Your task to perform on an android device: check out phone information Image 0: 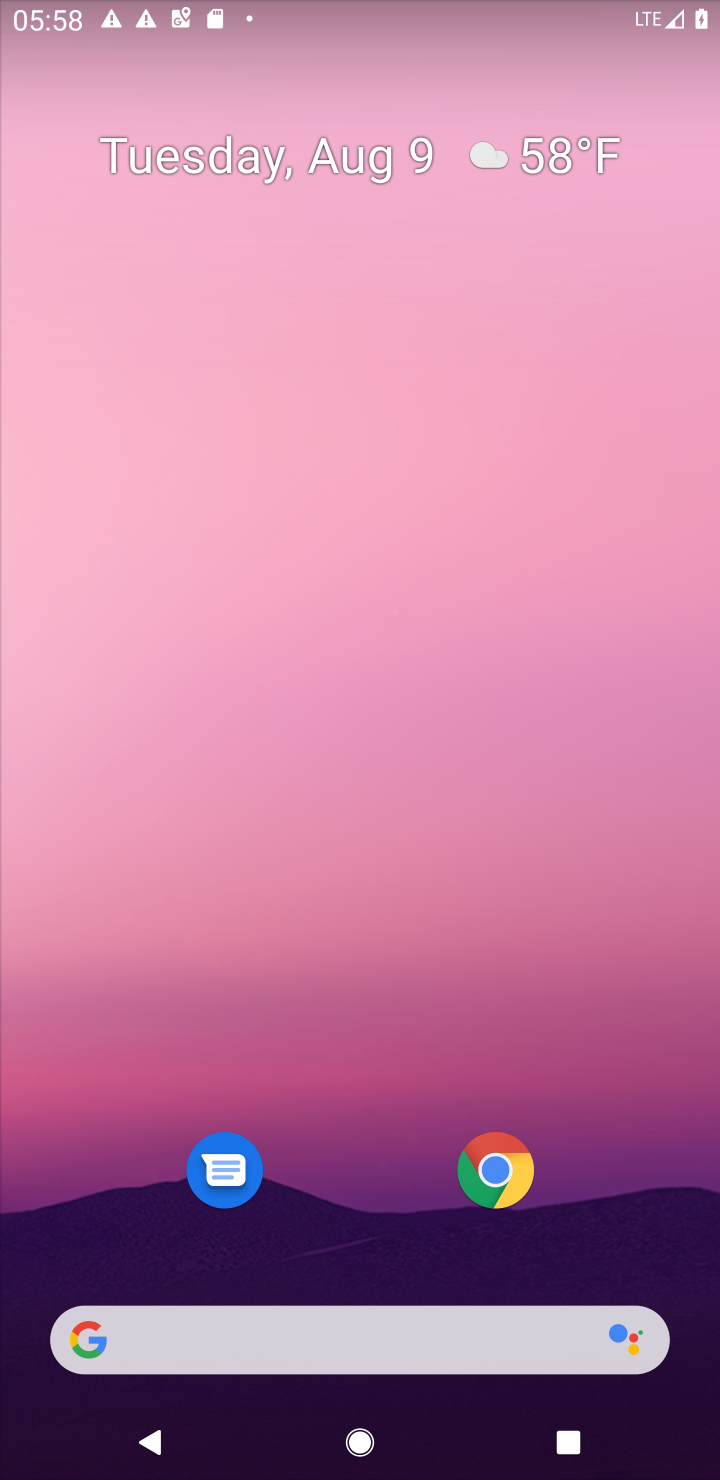
Step 0: press home button
Your task to perform on an android device: check out phone information Image 1: 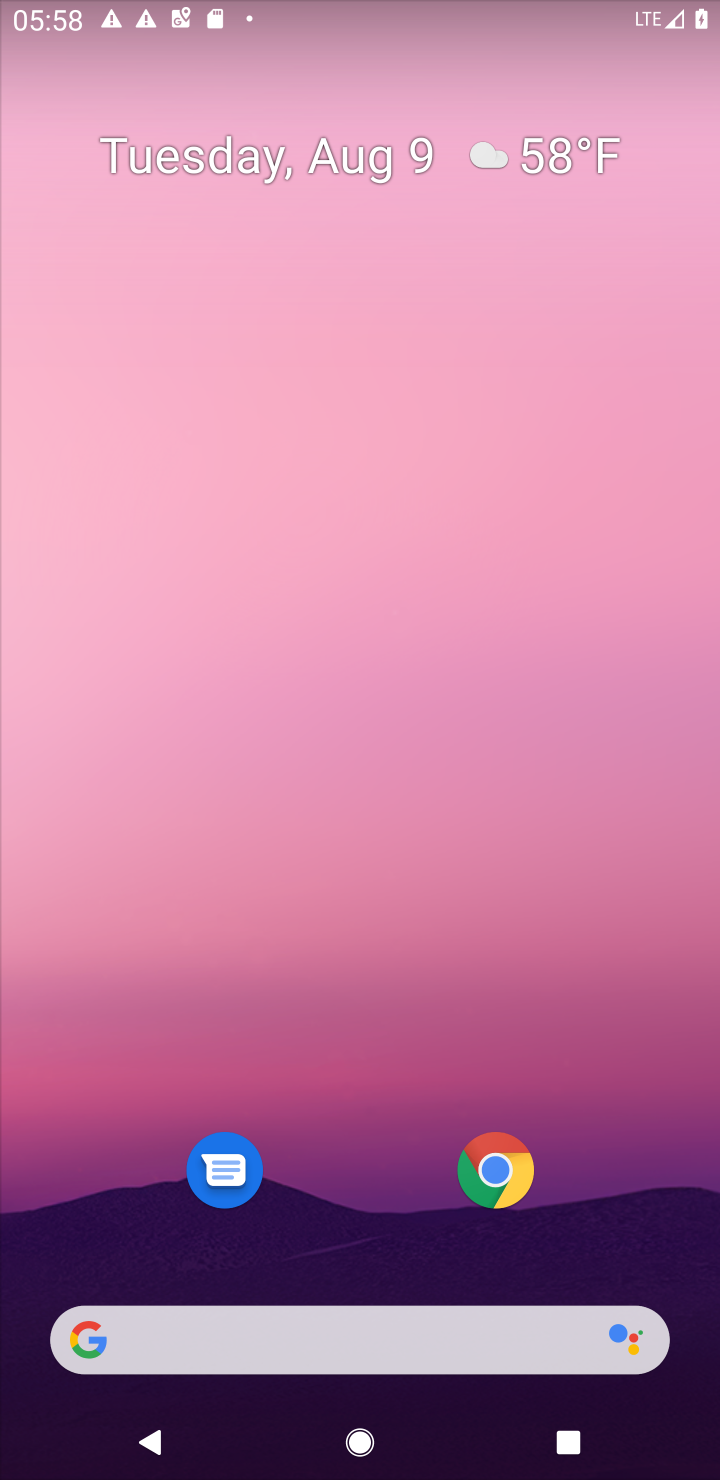
Step 1: drag from (450, 905) to (580, 78)
Your task to perform on an android device: check out phone information Image 2: 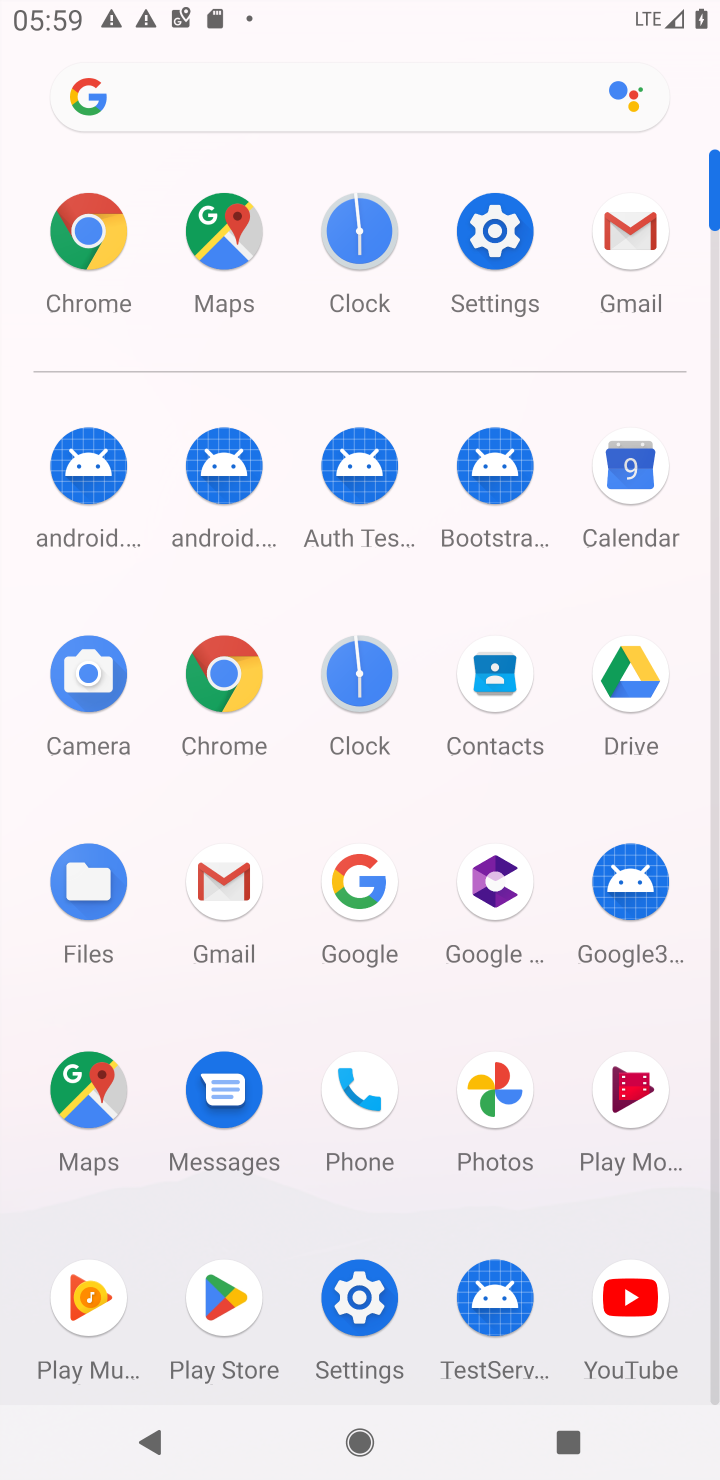
Step 2: click (501, 254)
Your task to perform on an android device: check out phone information Image 3: 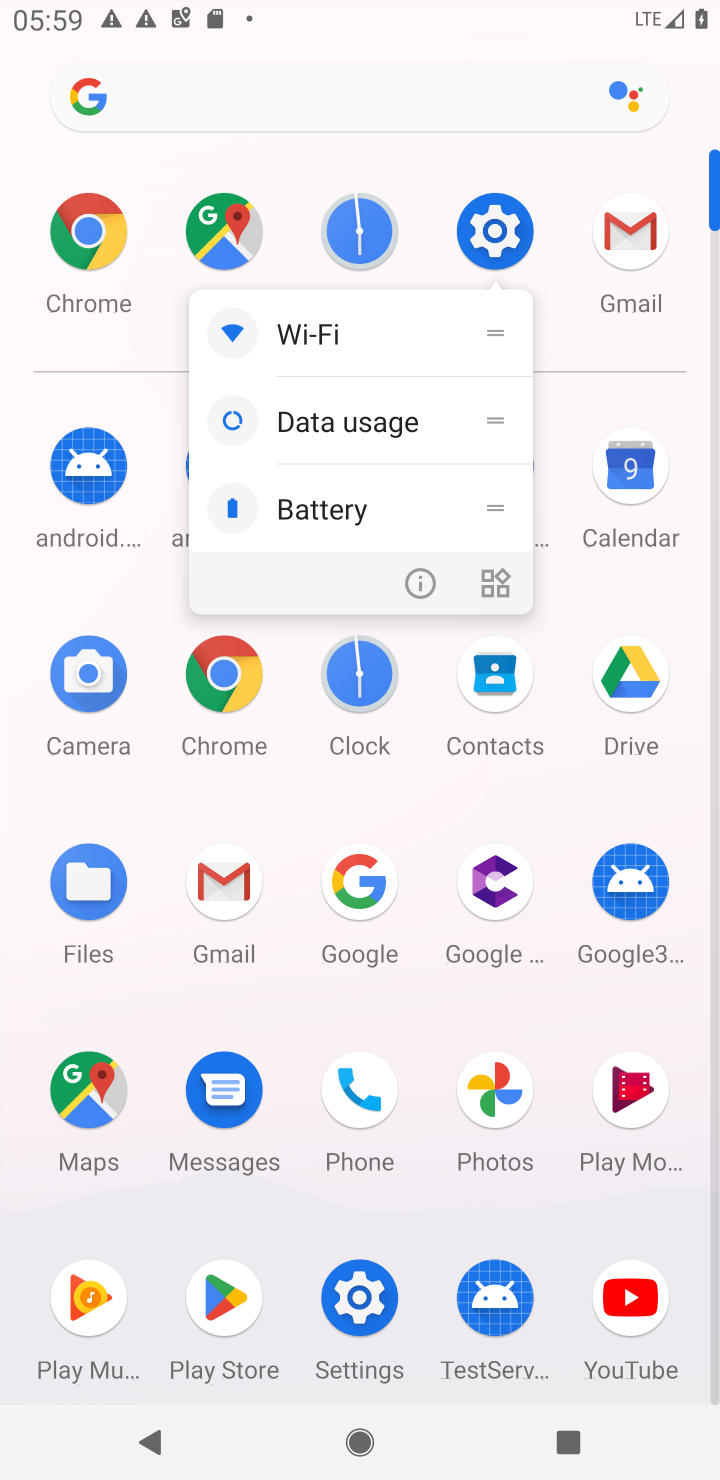
Step 3: click (501, 254)
Your task to perform on an android device: check out phone information Image 4: 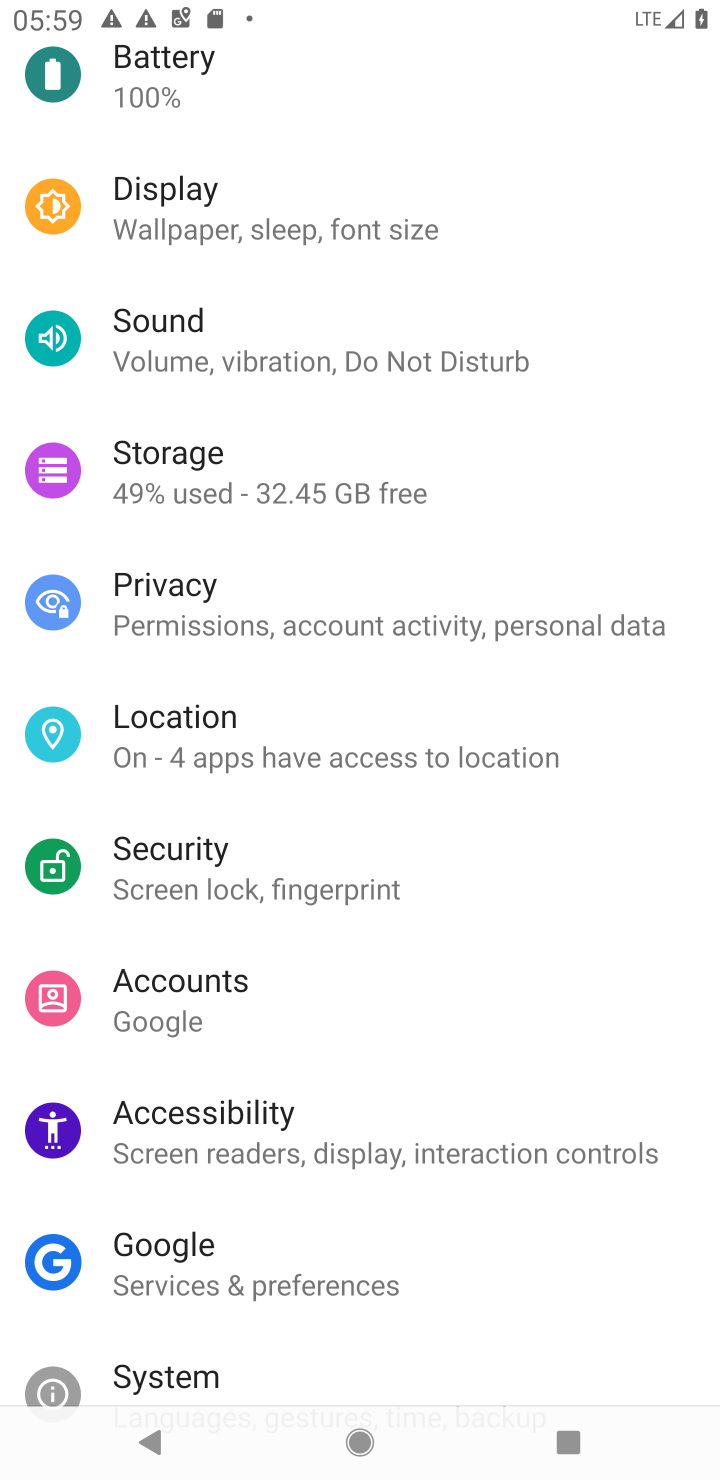
Step 4: drag from (459, 1316) to (454, 25)
Your task to perform on an android device: check out phone information Image 5: 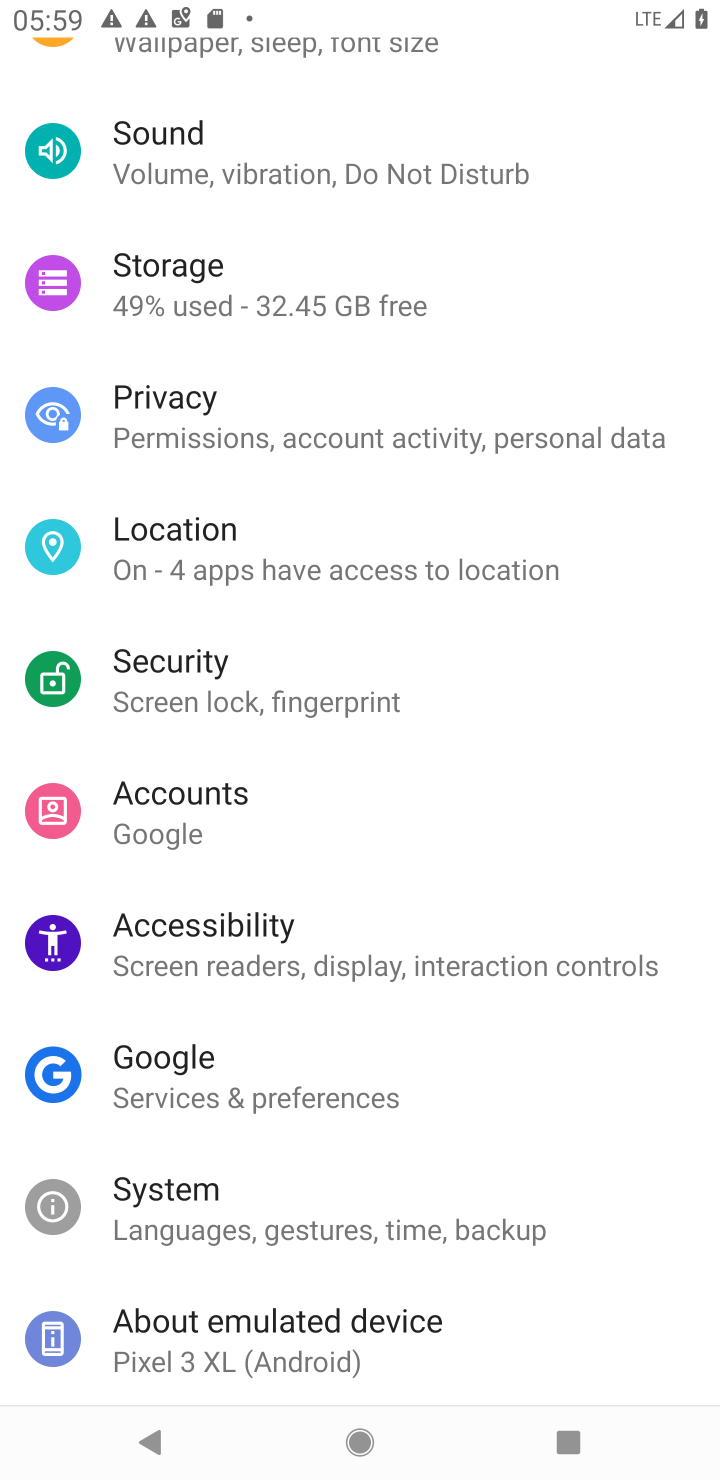
Step 5: click (221, 1328)
Your task to perform on an android device: check out phone information Image 6: 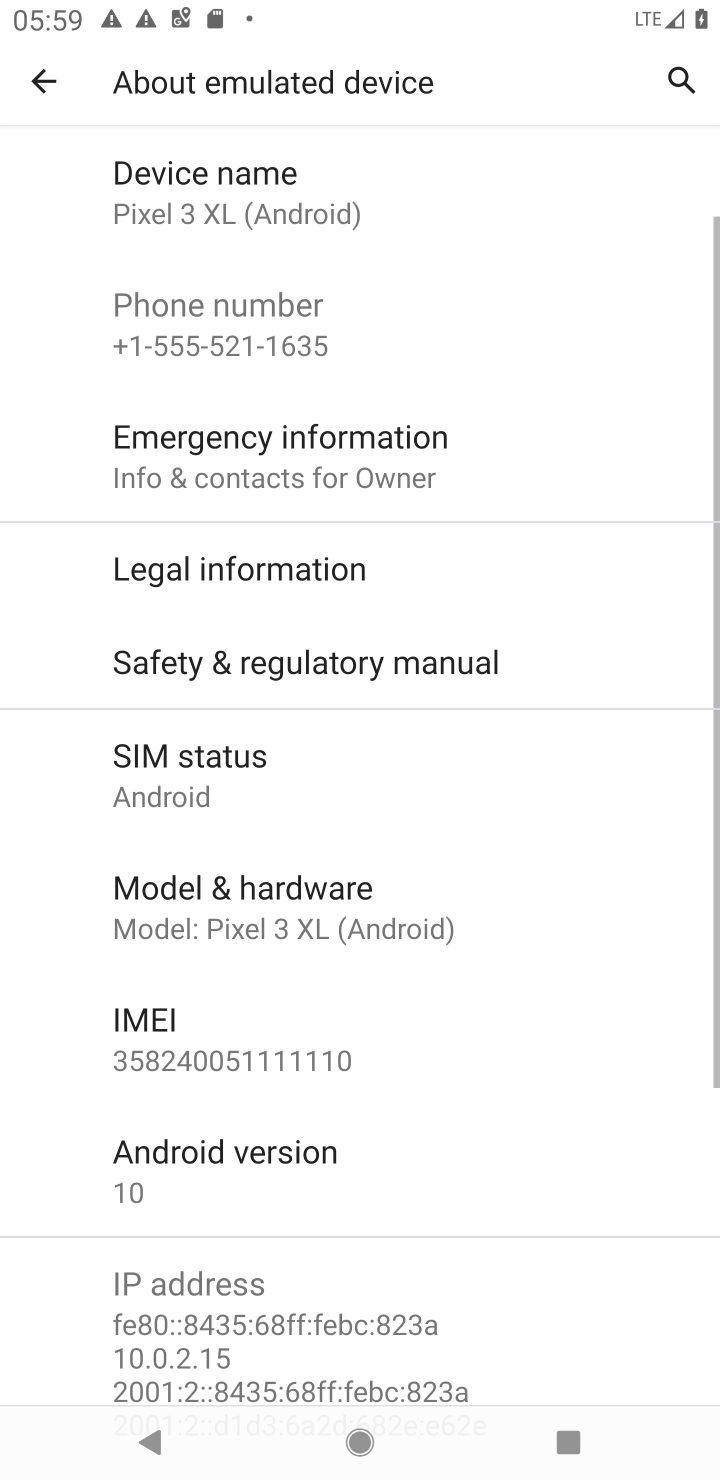
Step 6: task complete